Your task to perform on an android device: star an email in the gmail app Image 0: 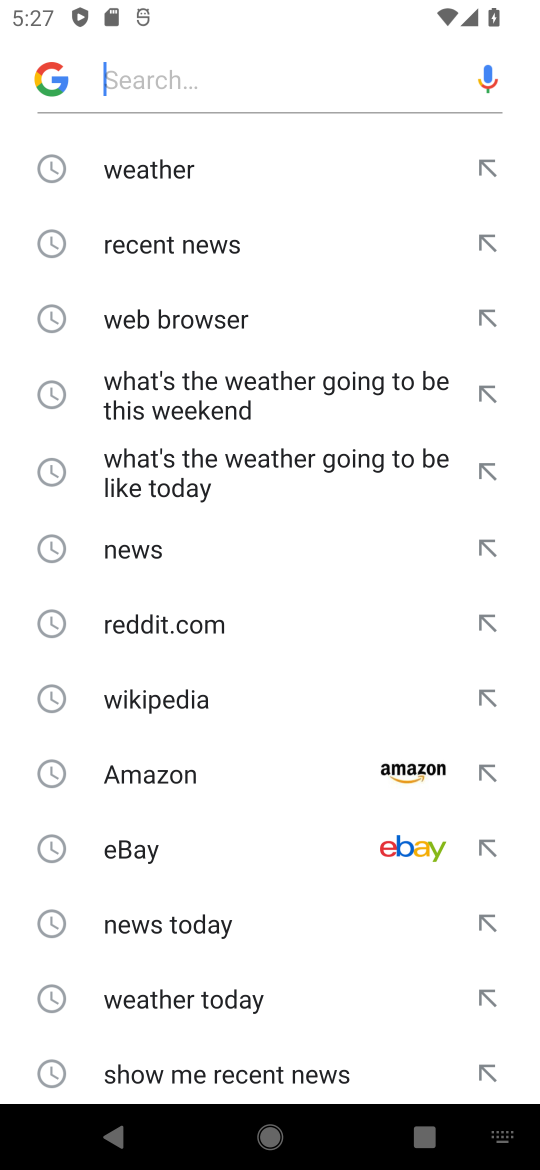
Step 0: press home button
Your task to perform on an android device: star an email in the gmail app Image 1: 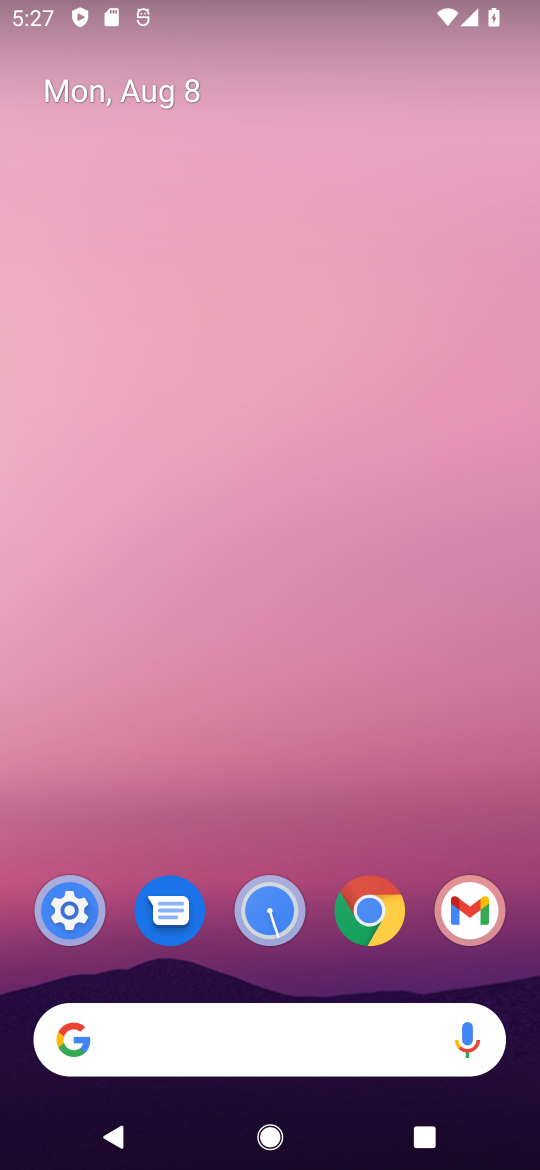
Step 1: drag from (246, 1068) to (319, 537)
Your task to perform on an android device: star an email in the gmail app Image 2: 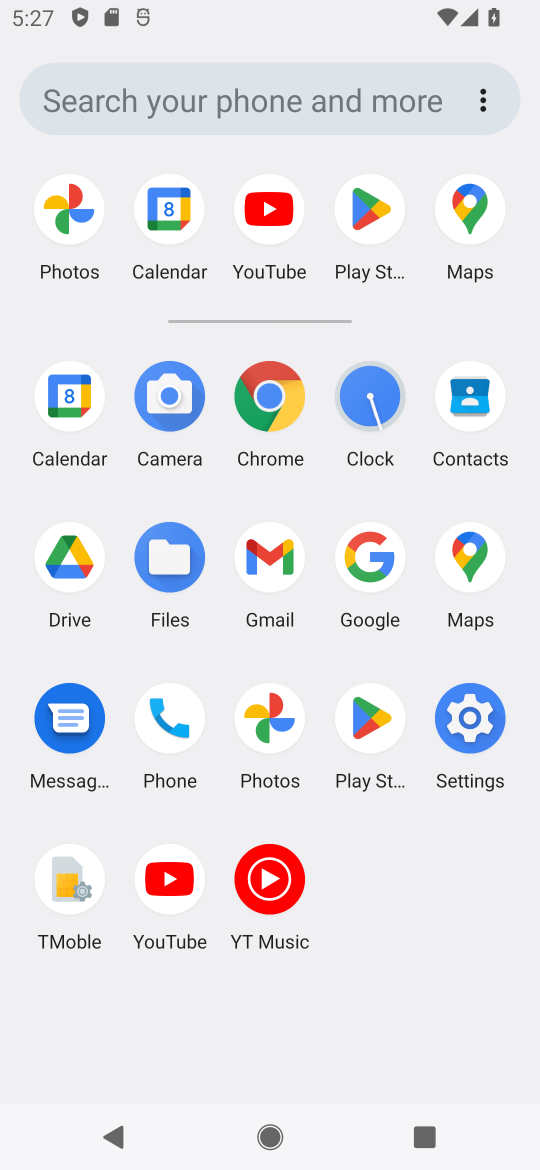
Step 2: click (273, 557)
Your task to perform on an android device: star an email in the gmail app Image 3: 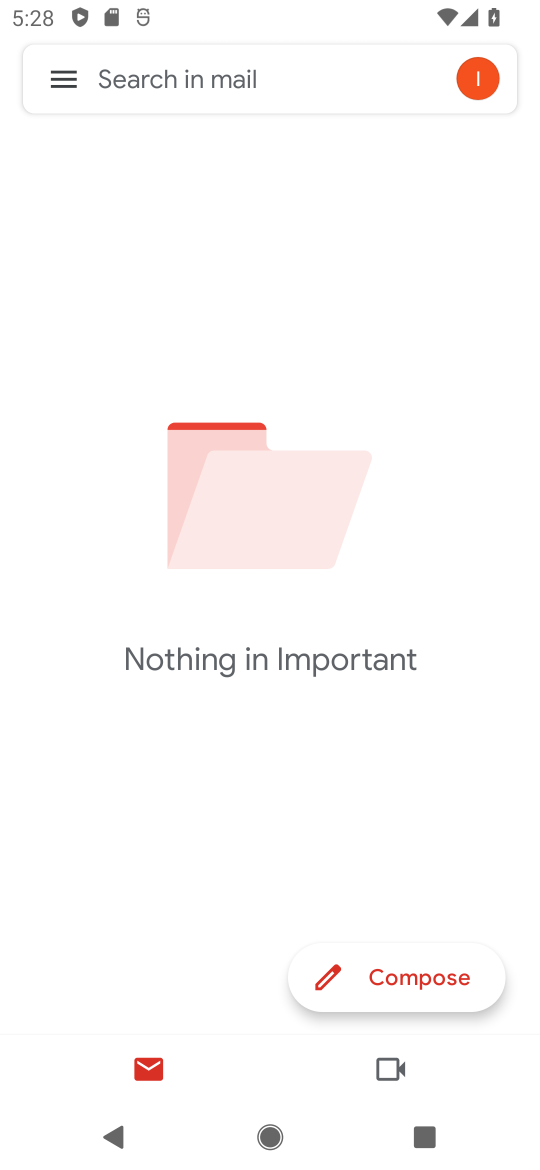
Step 3: click (57, 85)
Your task to perform on an android device: star an email in the gmail app Image 4: 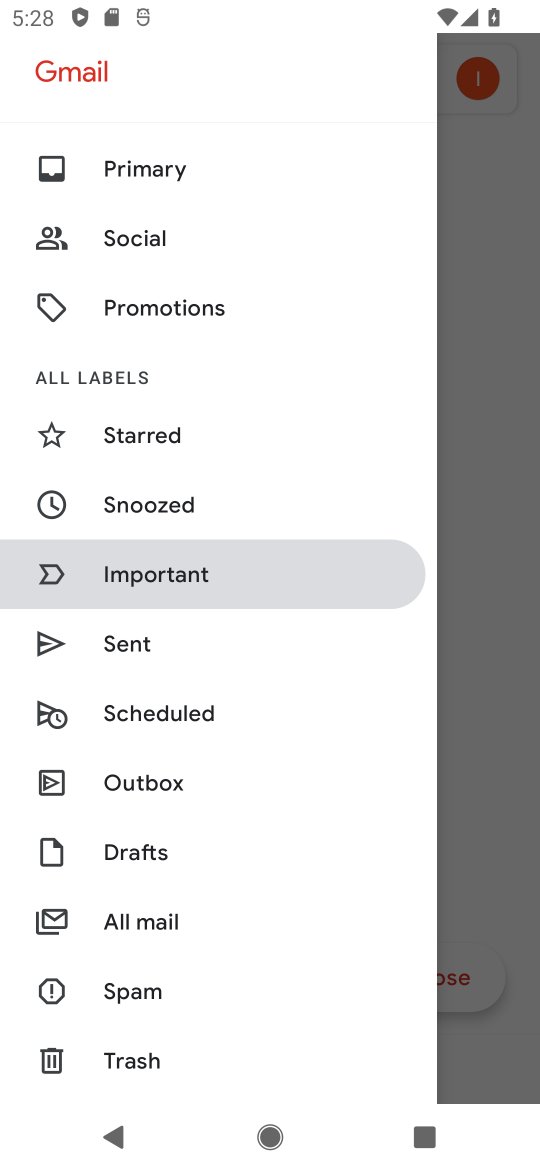
Step 4: click (129, 160)
Your task to perform on an android device: star an email in the gmail app Image 5: 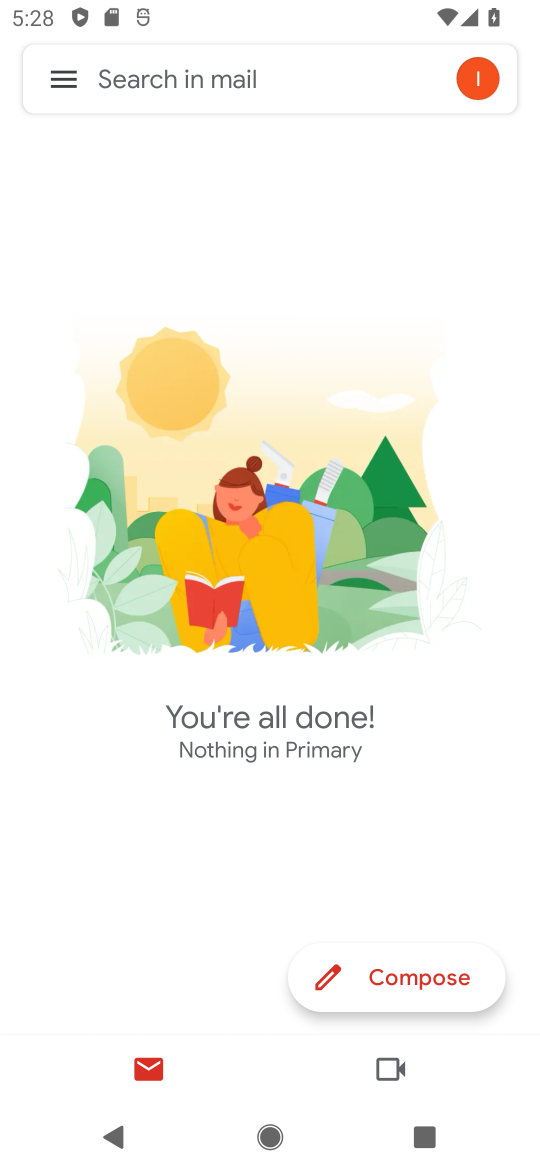
Step 5: click (64, 78)
Your task to perform on an android device: star an email in the gmail app Image 6: 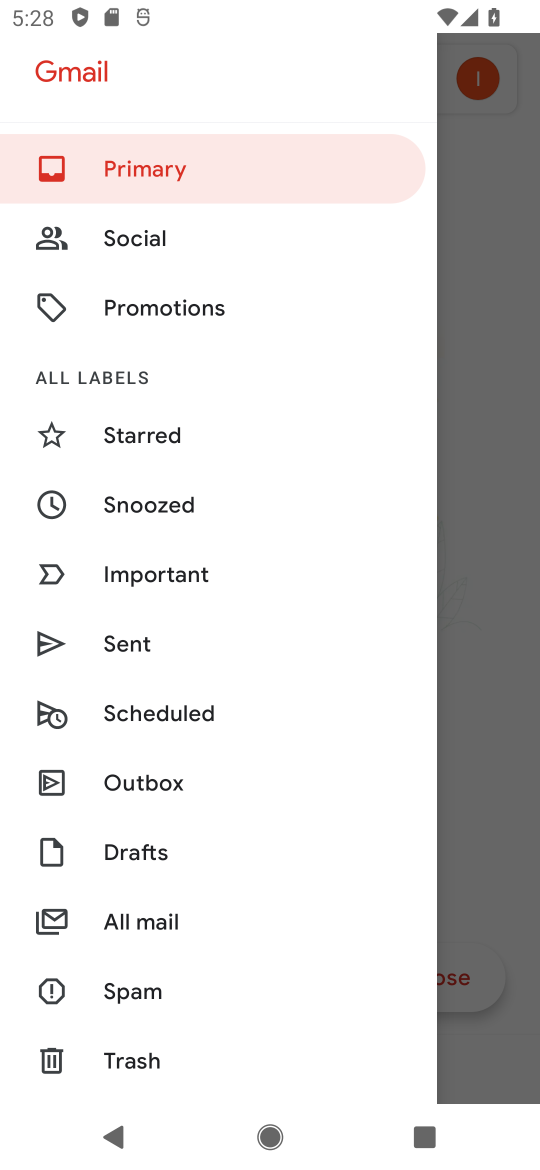
Step 6: click (136, 438)
Your task to perform on an android device: star an email in the gmail app Image 7: 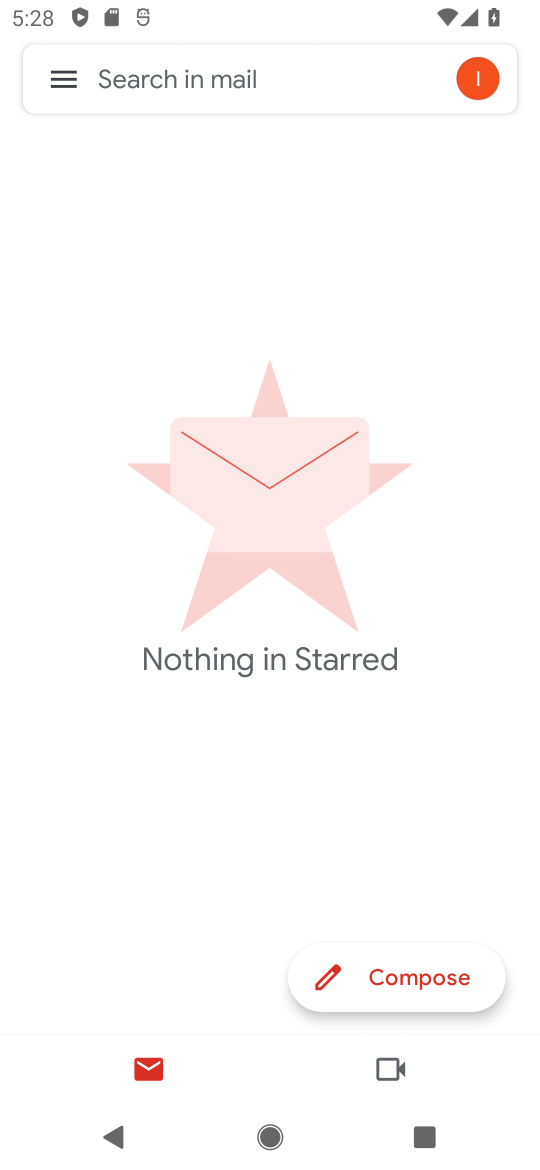
Step 7: task complete